Your task to perform on an android device: empty trash in the gmail app Image 0: 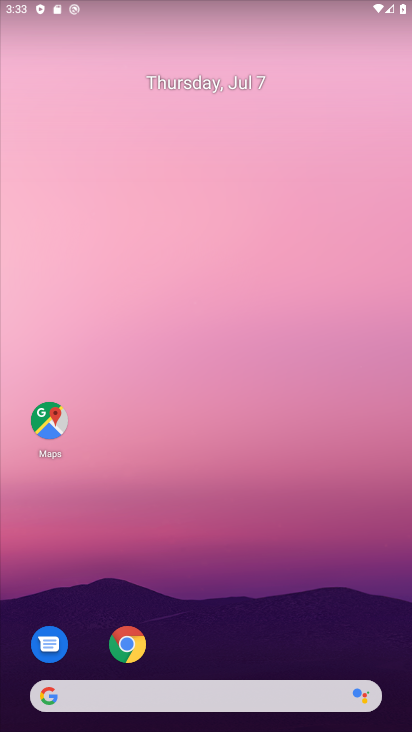
Step 0: drag from (201, 545) to (168, 38)
Your task to perform on an android device: empty trash in the gmail app Image 1: 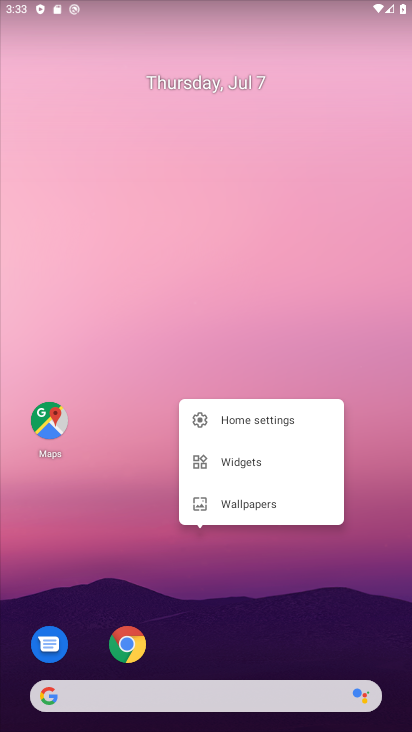
Step 1: click (106, 296)
Your task to perform on an android device: empty trash in the gmail app Image 2: 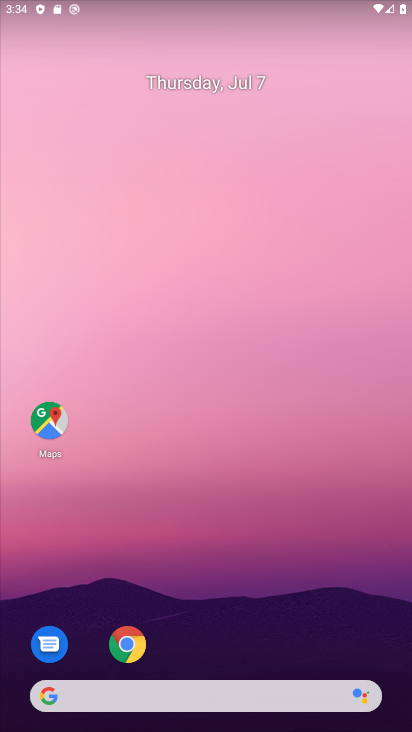
Step 2: drag from (353, 598) to (254, 200)
Your task to perform on an android device: empty trash in the gmail app Image 3: 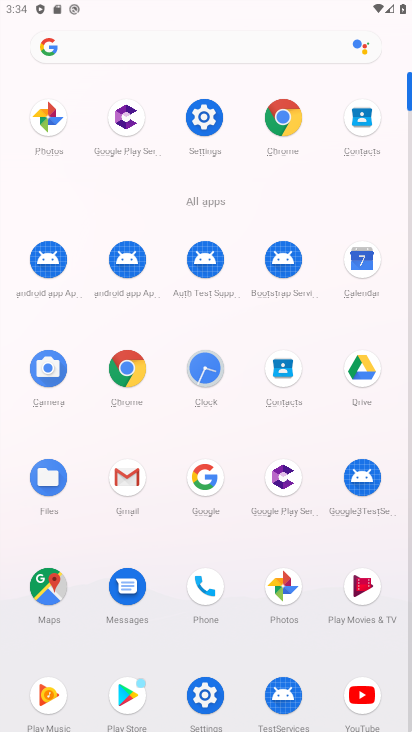
Step 3: click (142, 471)
Your task to perform on an android device: empty trash in the gmail app Image 4: 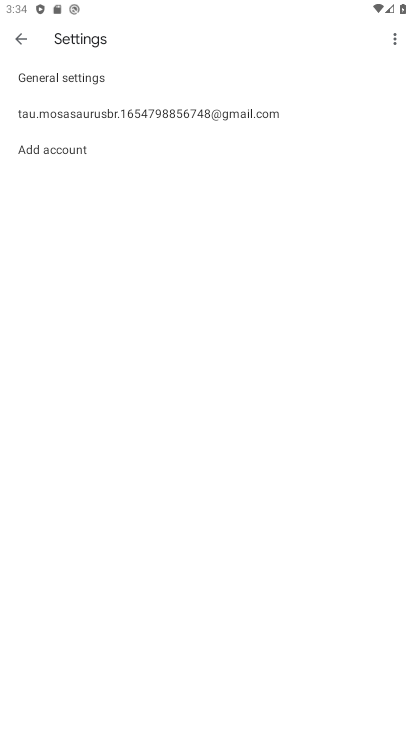
Step 4: click (18, 34)
Your task to perform on an android device: empty trash in the gmail app Image 5: 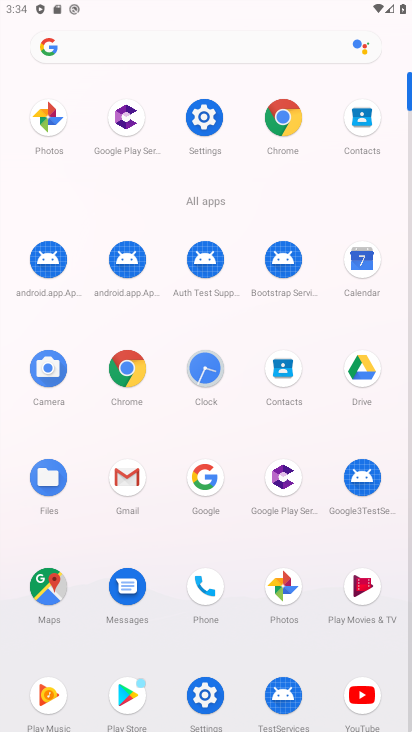
Step 5: click (146, 473)
Your task to perform on an android device: empty trash in the gmail app Image 6: 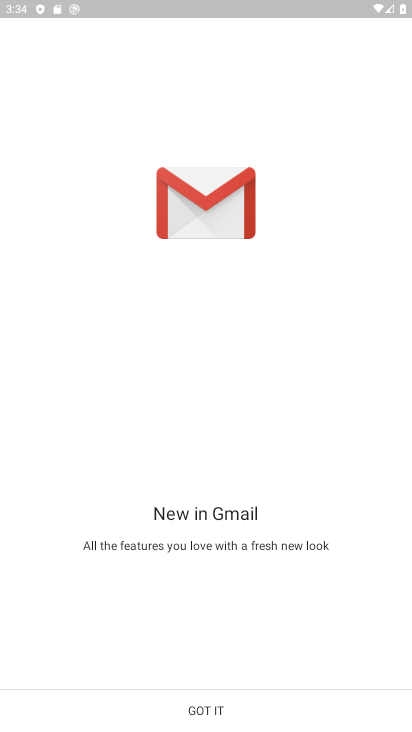
Step 6: click (226, 720)
Your task to perform on an android device: empty trash in the gmail app Image 7: 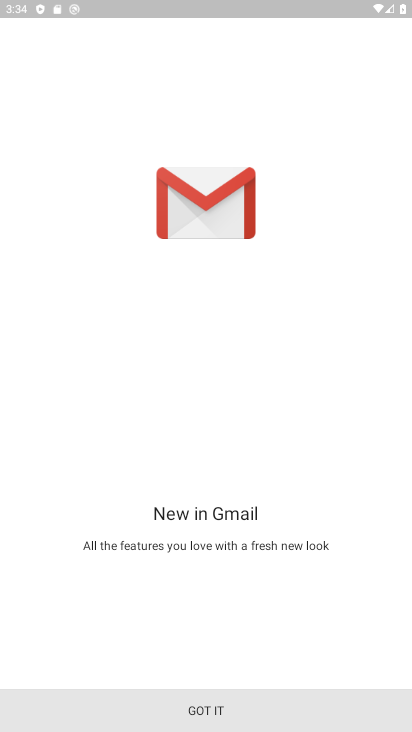
Step 7: click (220, 717)
Your task to perform on an android device: empty trash in the gmail app Image 8: 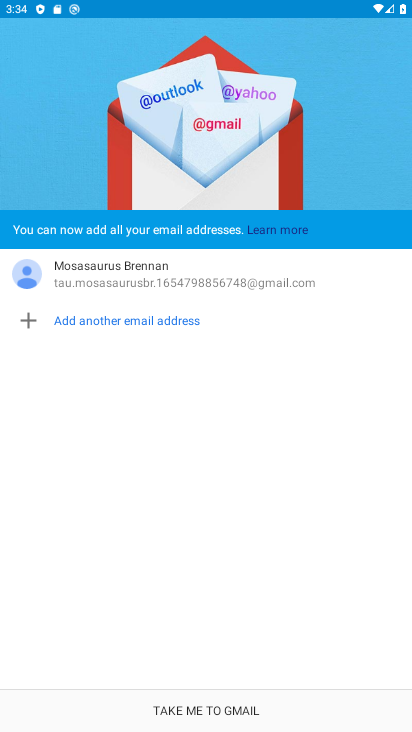
Step 8: click (220, 717)
Your task to perform on an android device: empty trash in the gmail app Image 9: 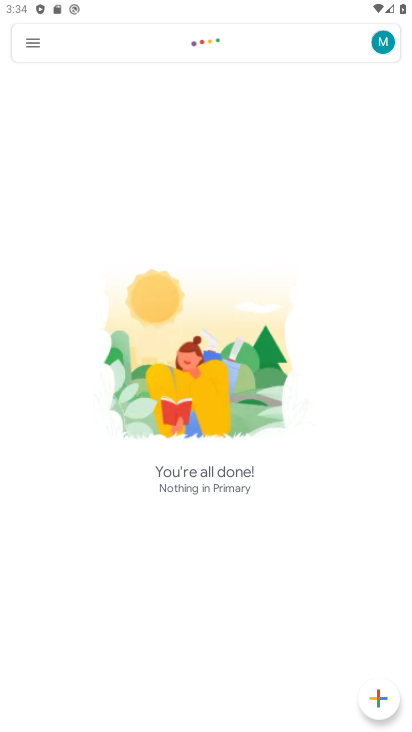
Step 9: click (23, 49)
Your task to perform on an android device: empty trash in the gmail app Image 10: 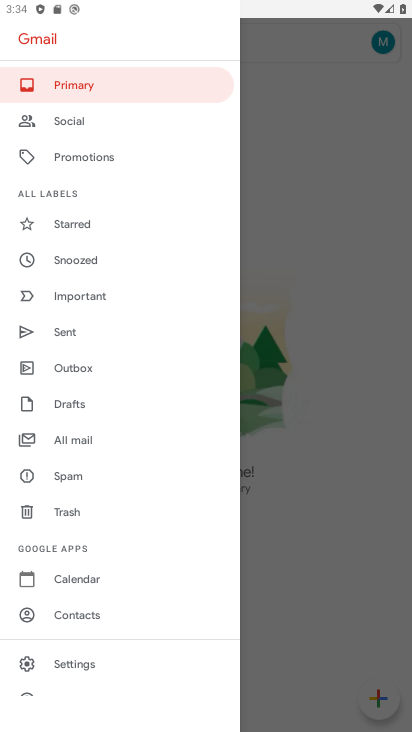
Step 10: click (74, 506)
Your task to perform on an android device: empty trash in the gmail app Image 11: 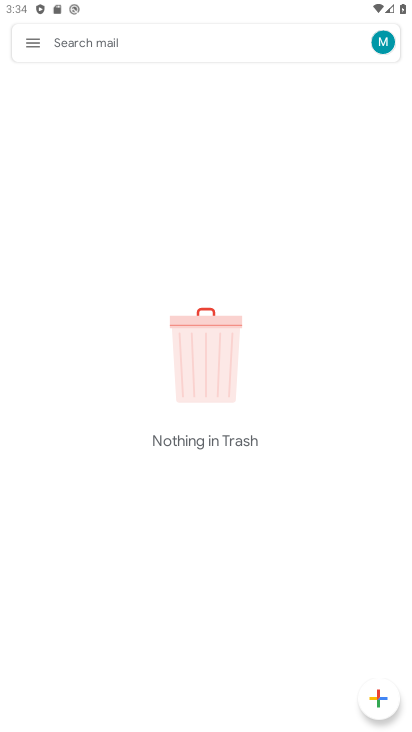
Step 11: task complete